Your task to perform on an android device: Go to privacy settings Image 0: 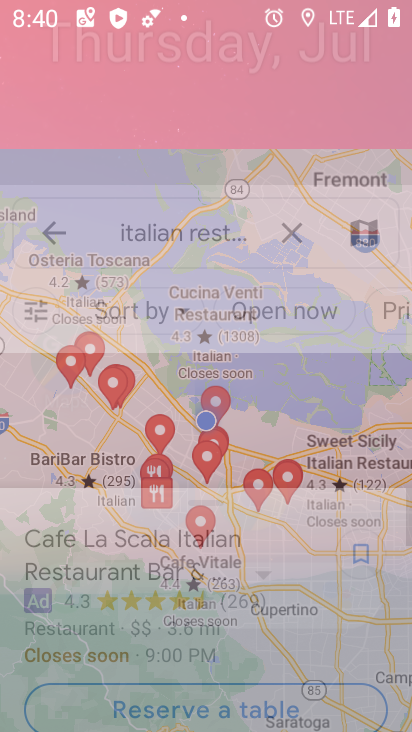
Step 0: press home button
Your task to perform on an android device: Go to privacy settings Image 1: 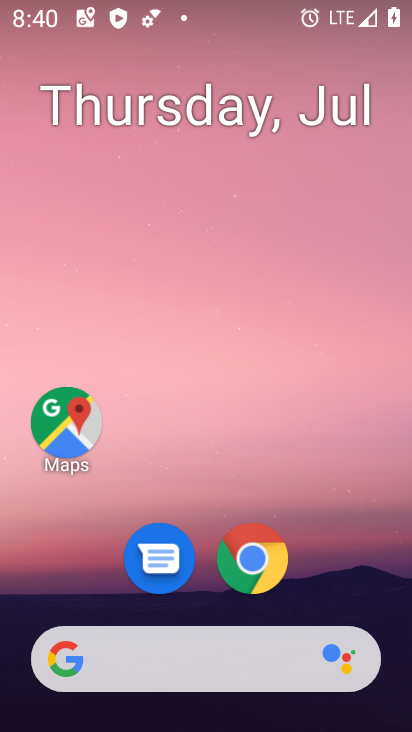
Step 1: drag from (186, 595) to (231, 182)
Your task to perform on an android device: Go to privacy settings Image 2: 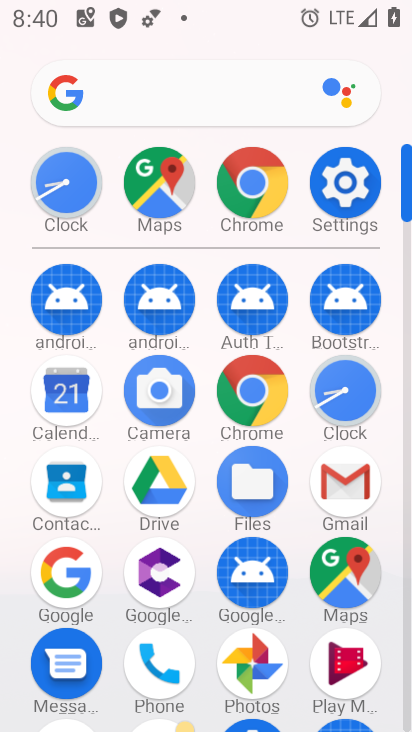
Step 2: click (356, 202)
Your task to perform on an android device: Go to privacy settings Image 3: 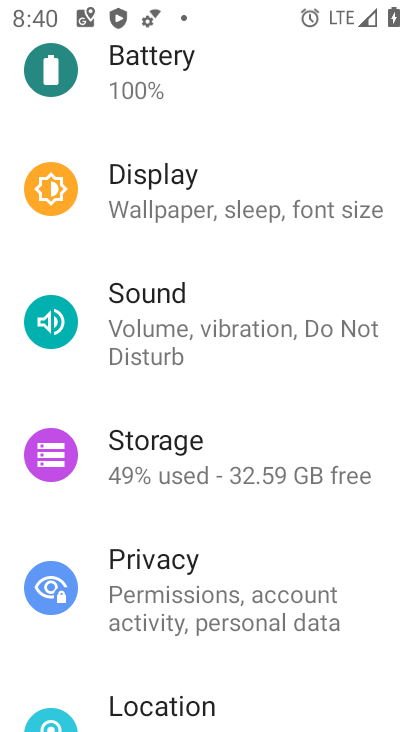
Step 3: click (203, 621)
Your task to perform on an android device: Go to privacy settings Image 4: 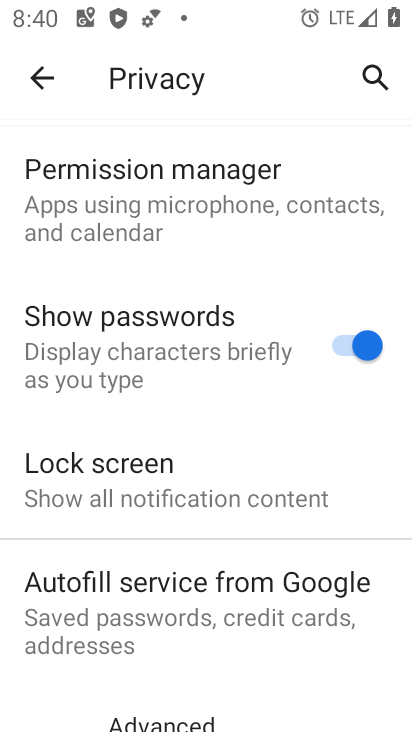
Step 4: task complete